Your task to perform on an android device: clear all cookies in the chrome app Image 0: 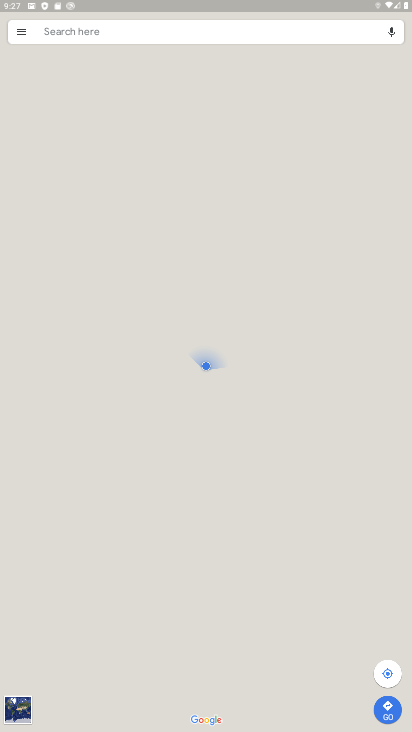
Step 0: press home button
Your task to perform on an android device: clear all cookies in the chrome app Image 1: 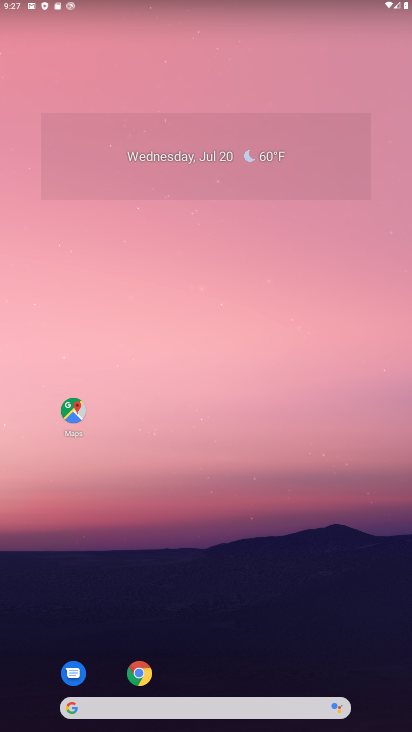
Step 1: click (148, 679)
Your task to perform on an android device: clear all cookies in the chrome app Image 2: 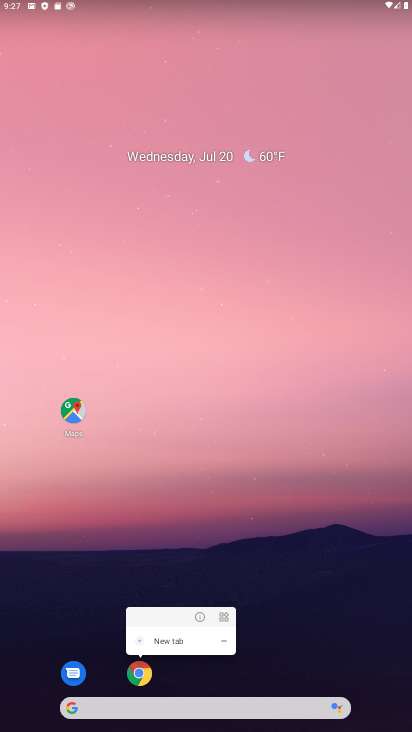
Step 2: click (144, 678)
Your task to perform on an android device: clear all cookies in the chrome app Image 3: 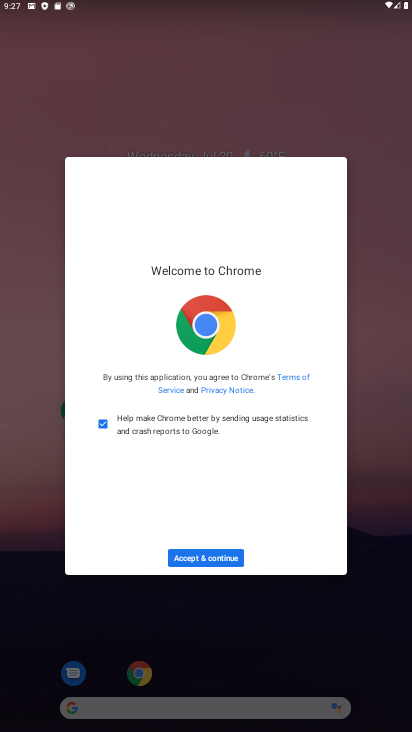
Step 3: click (204, 562)
Your task to perform on an android device: clear all cookies in the chrome app Image 4: 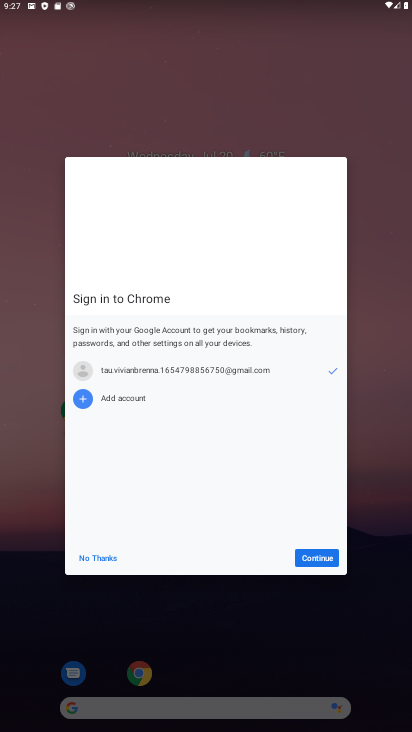
Step 4: click (318, 551)
Your task to perform on an android device: clear all cookies in the chrome app Image 5: 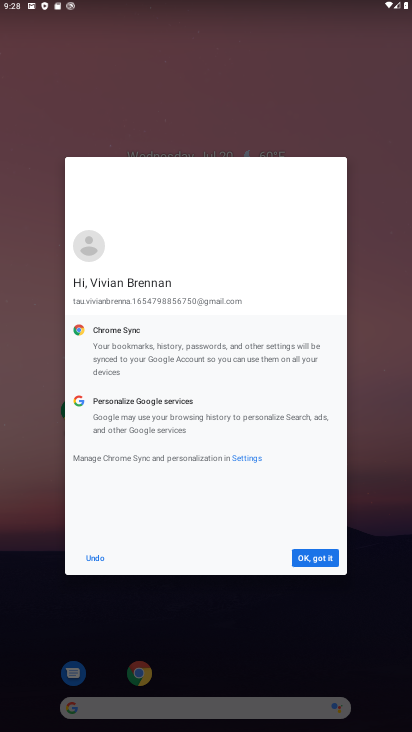
Step 5: click (307, 566)
Your task to perform on an android device: clear all cookies in the chrome app Image 6: 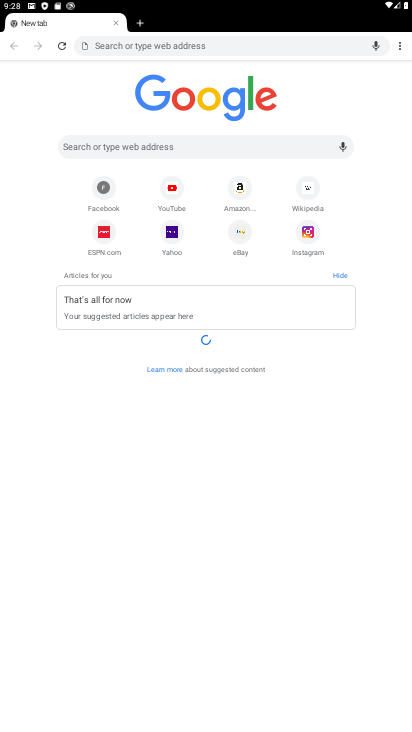
Step 6: click (399, 42)
Your task to perform on an android device: clear all cookies in the chrome app Image 7: 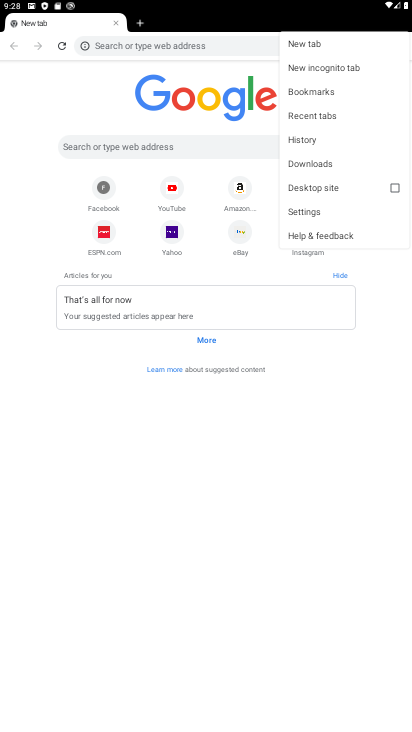
Step 7: click (318, 138)
Your task to perform on an android device: clear all cookies in the chrome app Image 8: 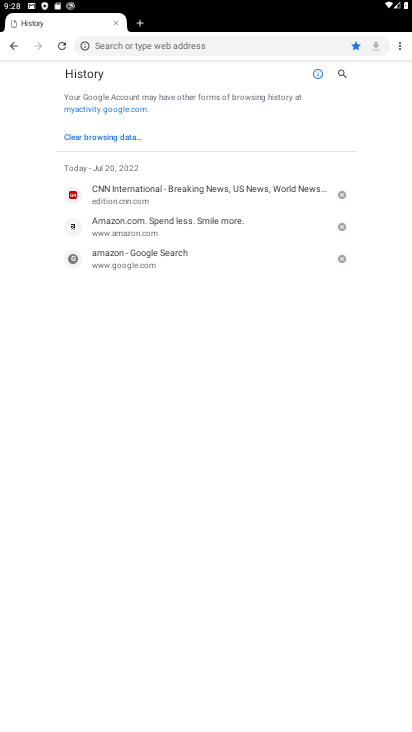
Step 8: click (118, 133)
Your task to perform on an android device: clear all cookies in the chrome app Image 9: 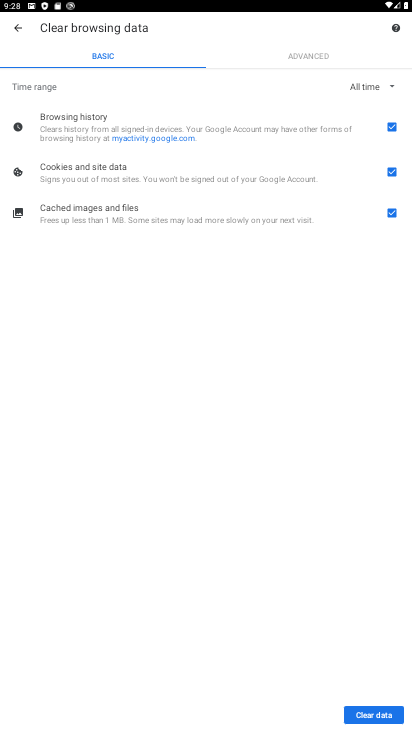
Step 9: click (392, 211)
Your task to perform on an android device: clear all cookies in the chrome app Image 10: 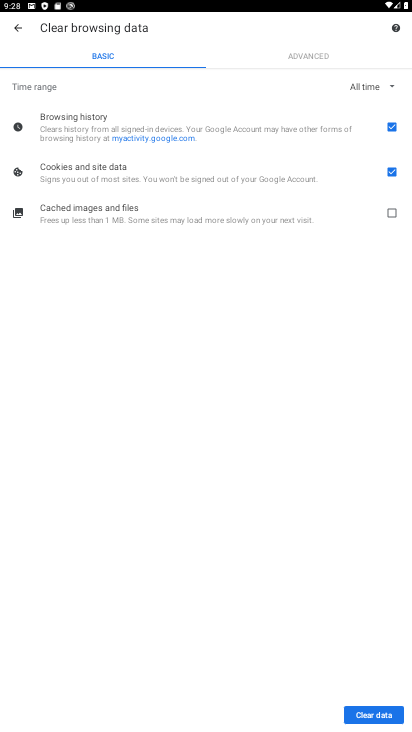
Step 10: click (383, 120)
Your task to perform on an android device: clear all cookies in the chrome app Image 11: 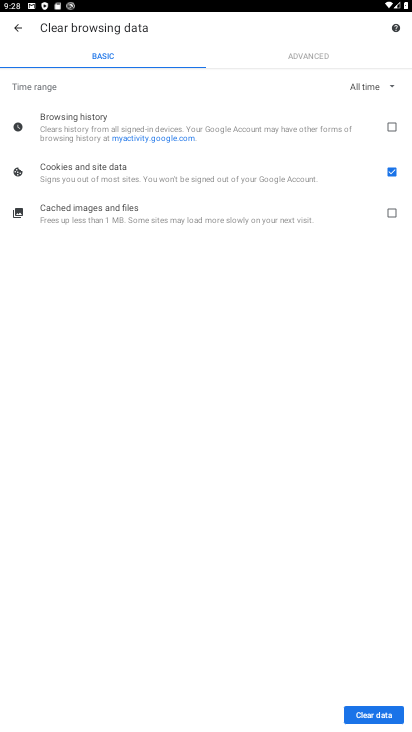
Step 11: click (384, 715)
Your task to perform on an android device: clear all cookies in the chrome app Image 12: 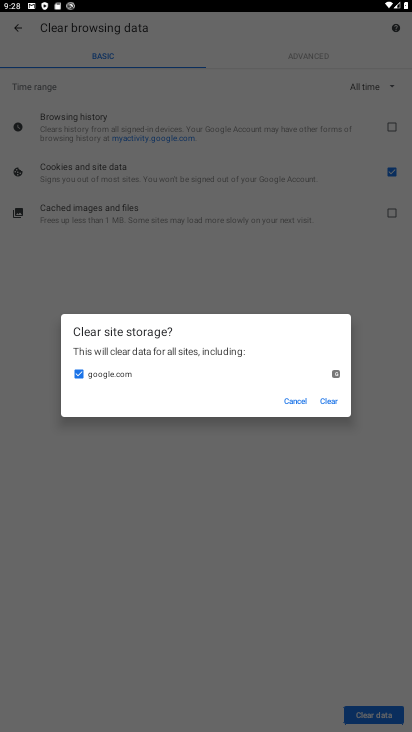
Step 12: click (337, 401)
Your task to perform on an android device: clear all cookies in the chrome app Image 13: 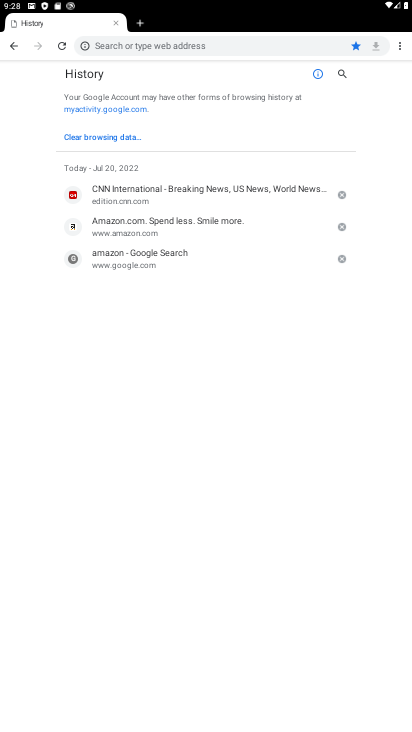
Step 13: task complete